Your task to perform on an android device: Search for seafood restaurants on Google Maps Image 0: 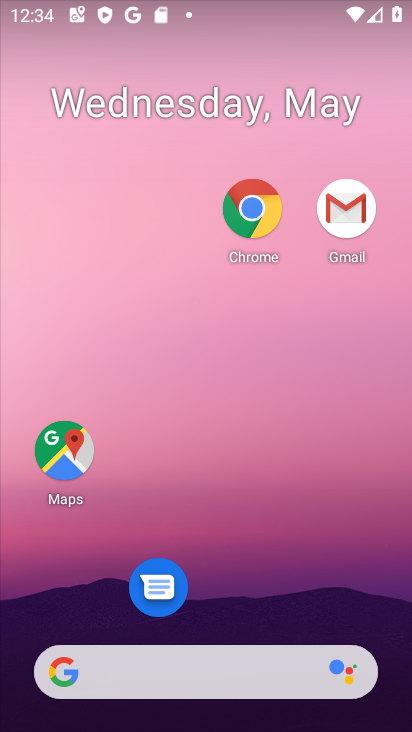
Step 0: click (49, 450)
Your task to perform on an android device: Search for seafood restaurants on Google Maps Image 1: 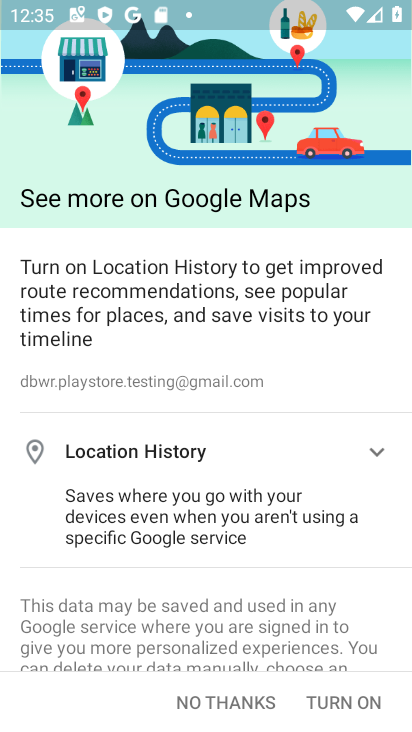
Step 1: click (244, 697)
Your task to perform on an android device: Search for seafood restaurants on Google Maps Image 2: 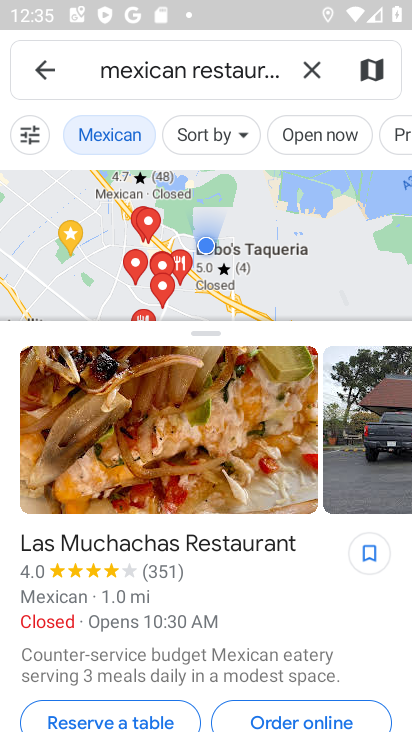
Step 2: click (297, 70)
Your task to perform on an android device: Search for seafood restaurants on Google Maps Image 3: 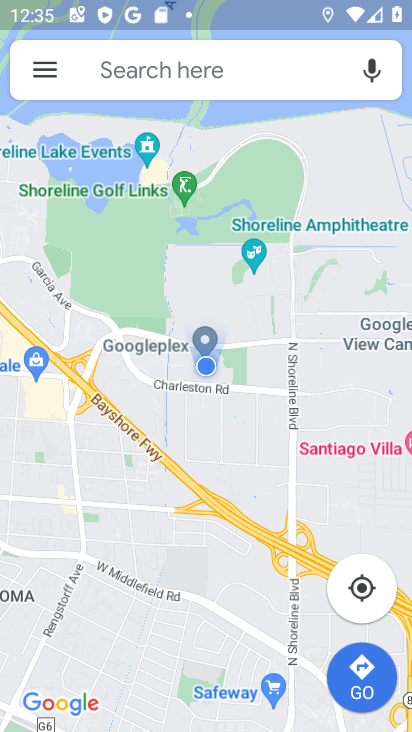
Step 3: click (224, 60)
Your task to perform on an android device: Search for seafood restaurants on Google Maps Image 4: 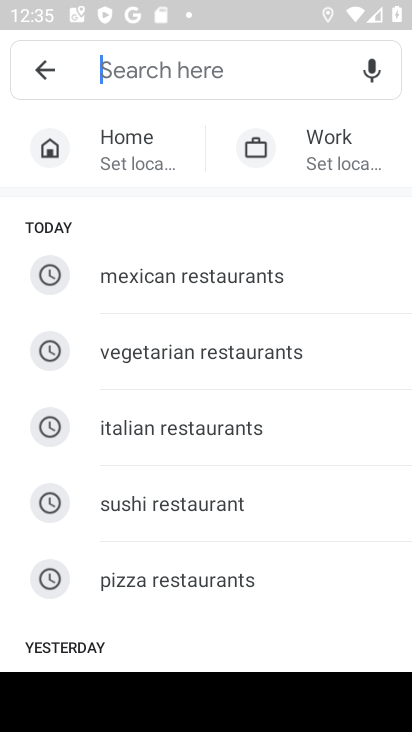
Step 4: type "seafood restaurant"
Your task to perform on an android device: Search for seafood restaurants on Google Maps Image 5: 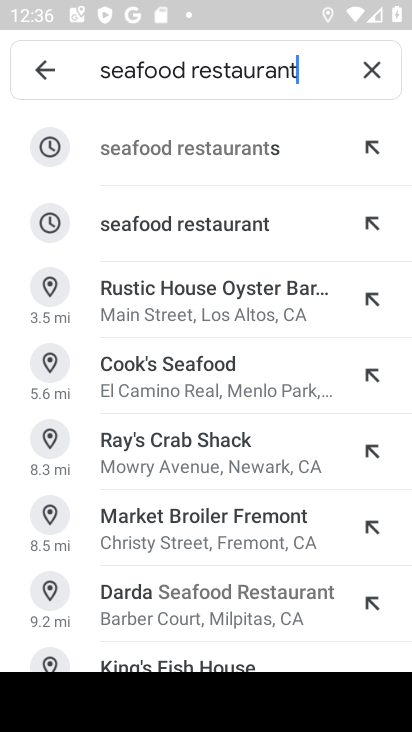
Step 5: click (244, 161)
Your task to perform on an android device: Search for seafood restaurants on Google Maps Image 6: 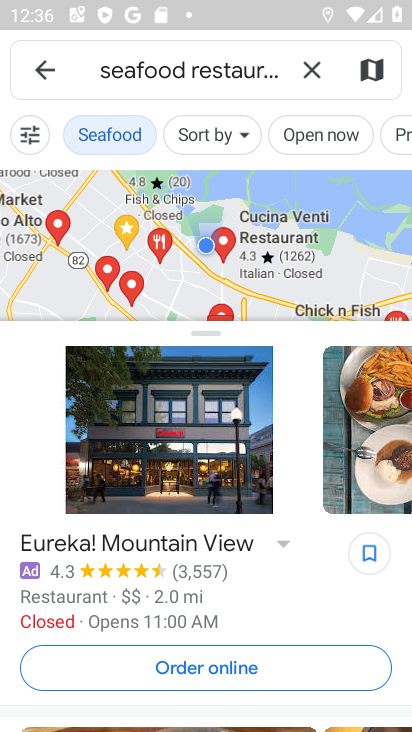
Step 6: task complete